Your task to perform on an android device: make emails show in primary in the gmail app Image 0: 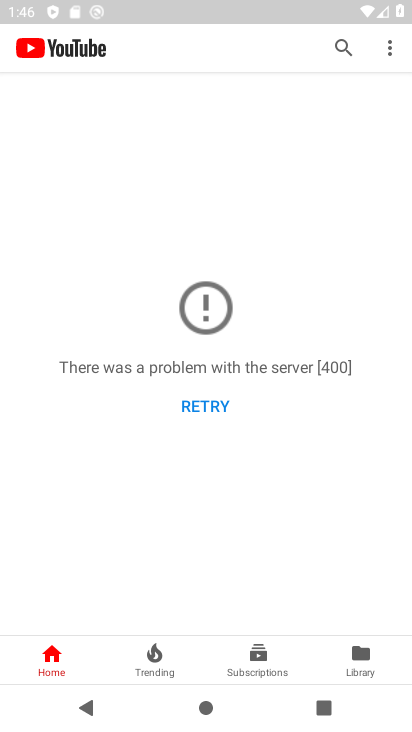
Step 0: press home button
Your task to perform on an android device: make emails show in primary in the gmail app Image 1: 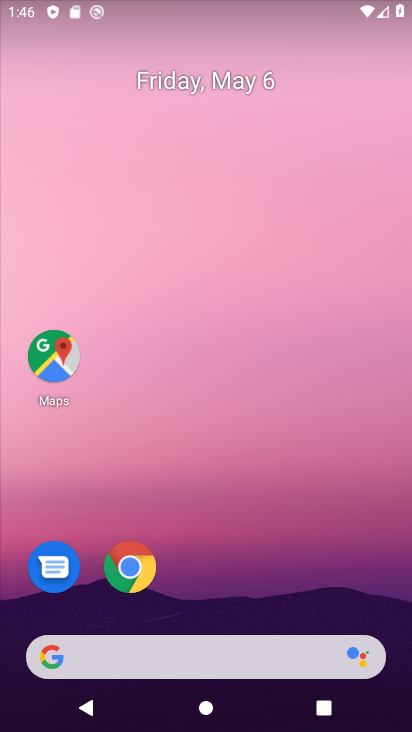
Step 1: drag from (390, 623) to (318, 88)
Your task to perform on an android device: make emails show in primary in the gmail app Image 2: 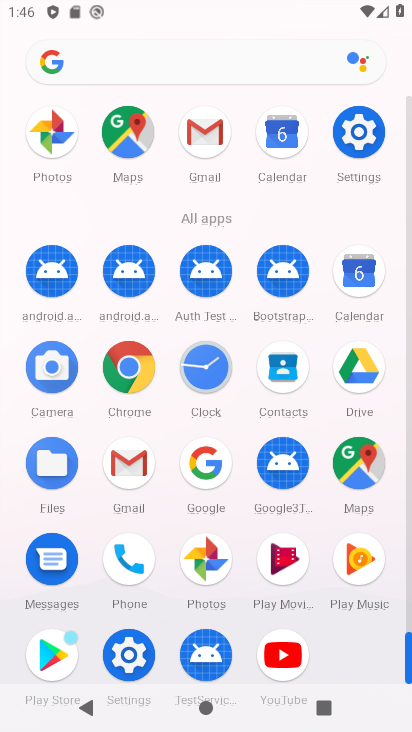
Step 2: click (127, 459)
Your task to perform on an android device: make emails show in primary in the gmail app Image 3: 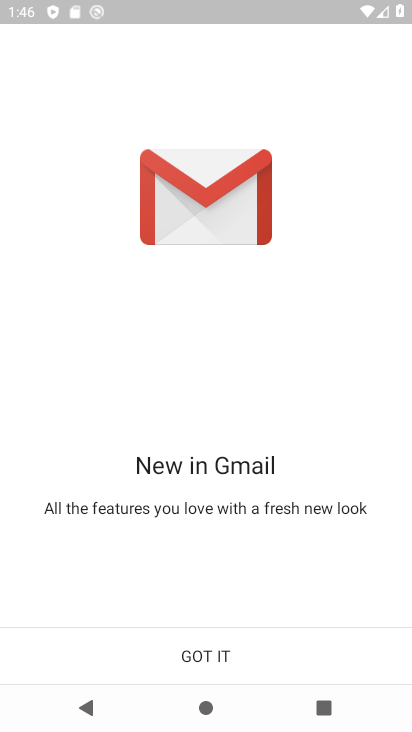
Step 3: click (192, 647)
Your task to perform on an android device: make emails show in primary in the gmail app Image 4: 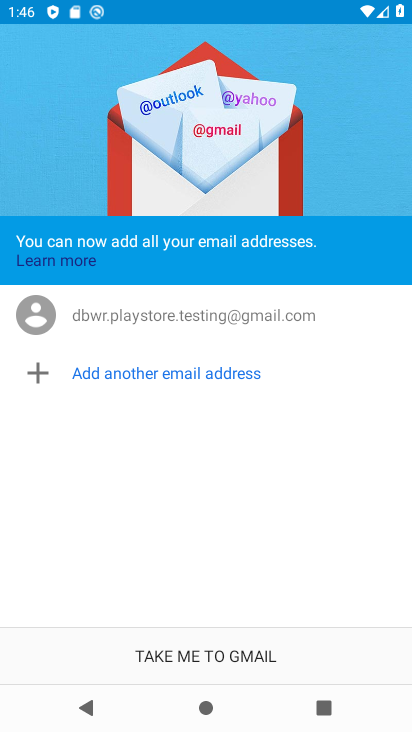
Step 4: click (211, 644)
Your task to perform on an android device: make emails show in primary in the gmail app Image 5: 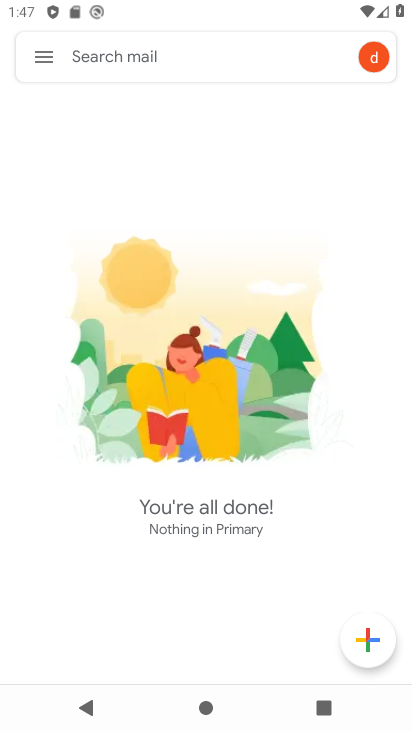
Step 5: click (43, 51)
Your task to perform on an android device: make emails show in primary in the gmail app Image 6: 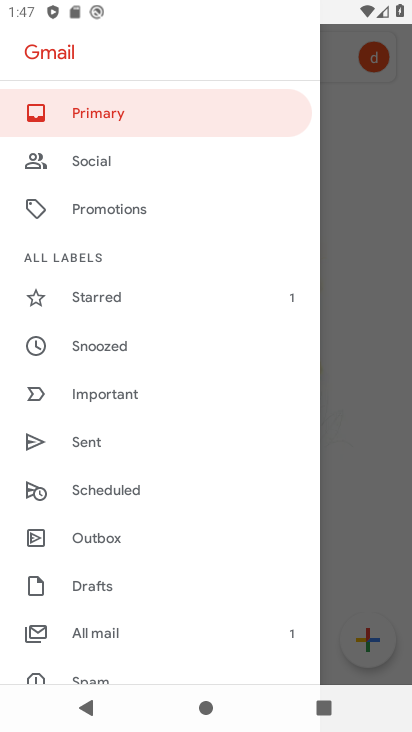
Step 6: click (164, 115)
Your task to perform on an android device: make emails show in primary in the gmail app Image 7: 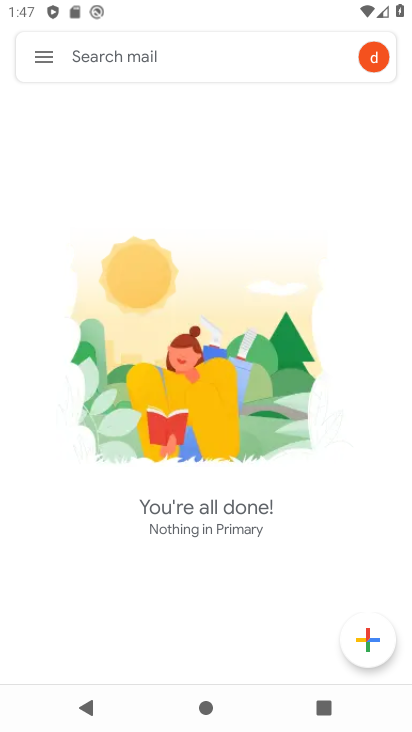
Step 7: task complete